Your task to perform on an android device: When is my next appointment? Image 0: 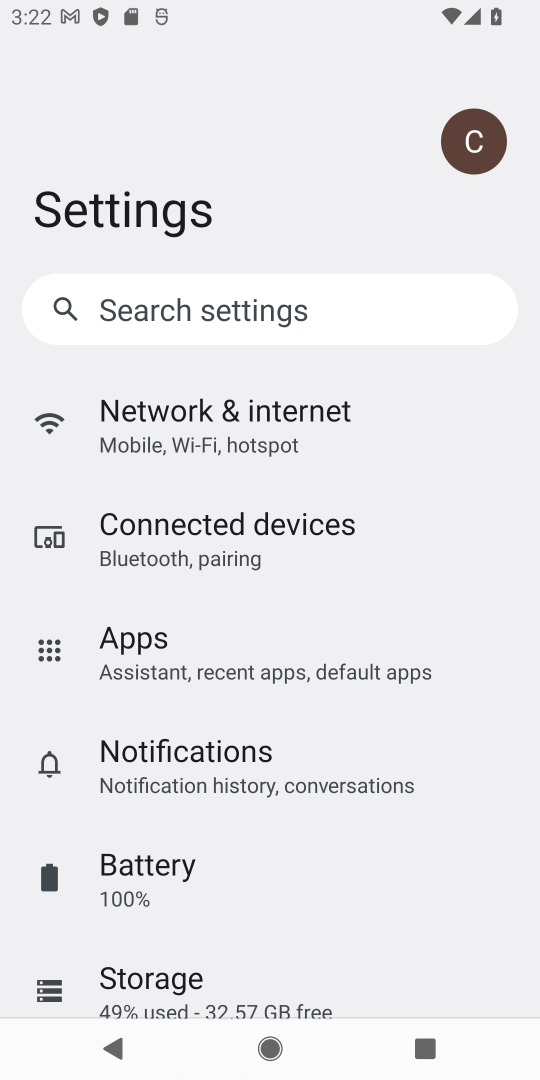
Step 0: press home button
Your task to perform on an android device: When is my next appointment? Image 1: 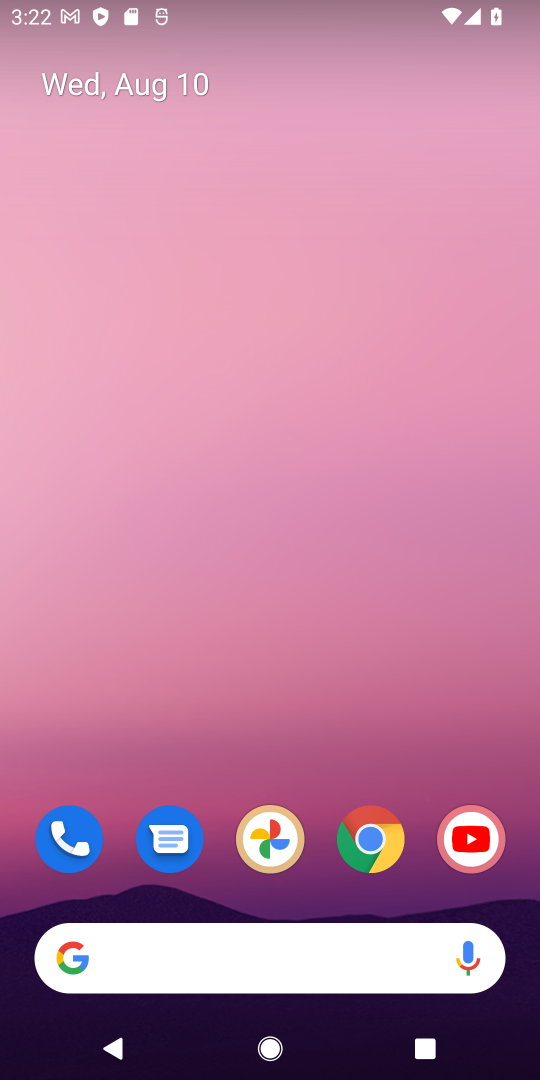
Step 1: drag from (302, 670) to (362, 0)
Your task to perform on an android device: When is my next appointment? Image 2: 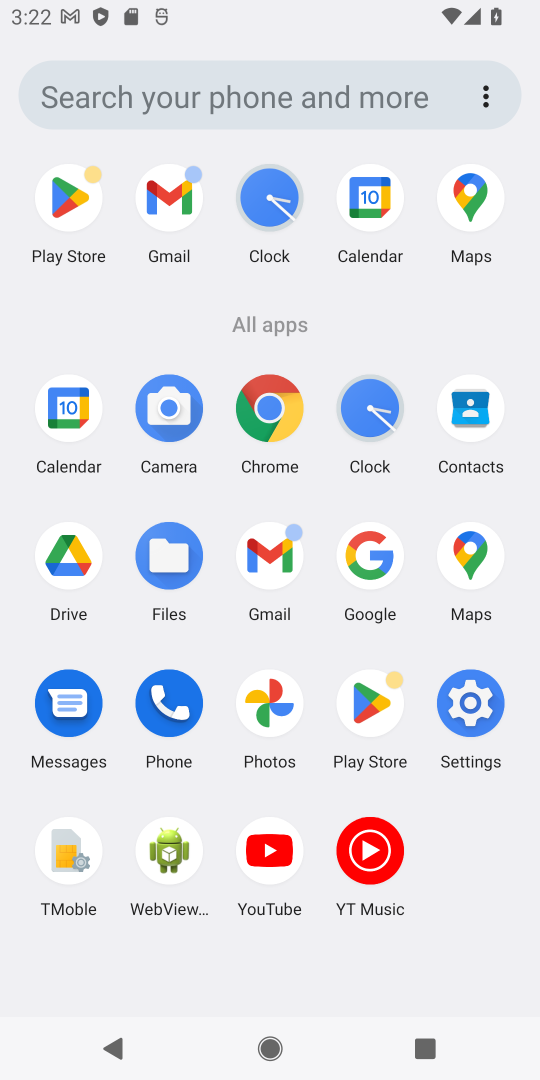
Step 2: click (380, 204)
Your task to perform on an android device: When is my next appointment? Image 3: 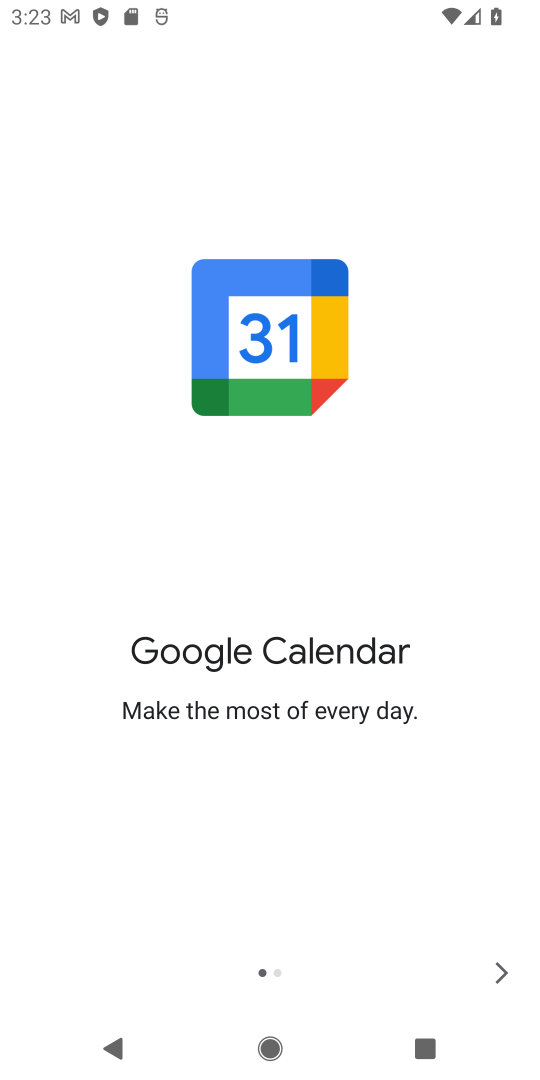
Step 3: click (503, 970)
Your task to perform on an android device: When is my next appointment? Image 4: 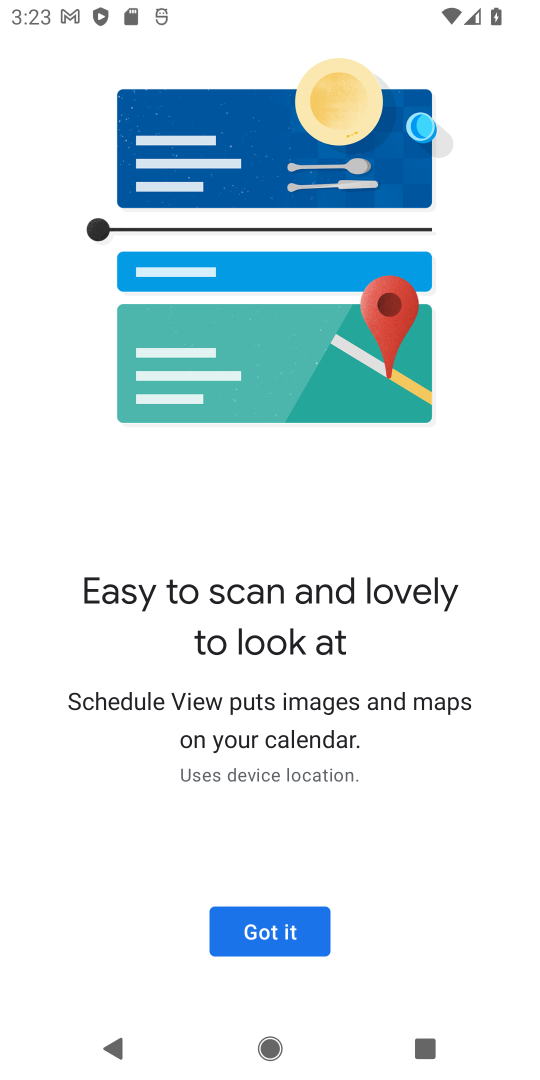
Step 4: click (300, 925)
Your task to perform on an android device: When is my next appointment? Image 5: 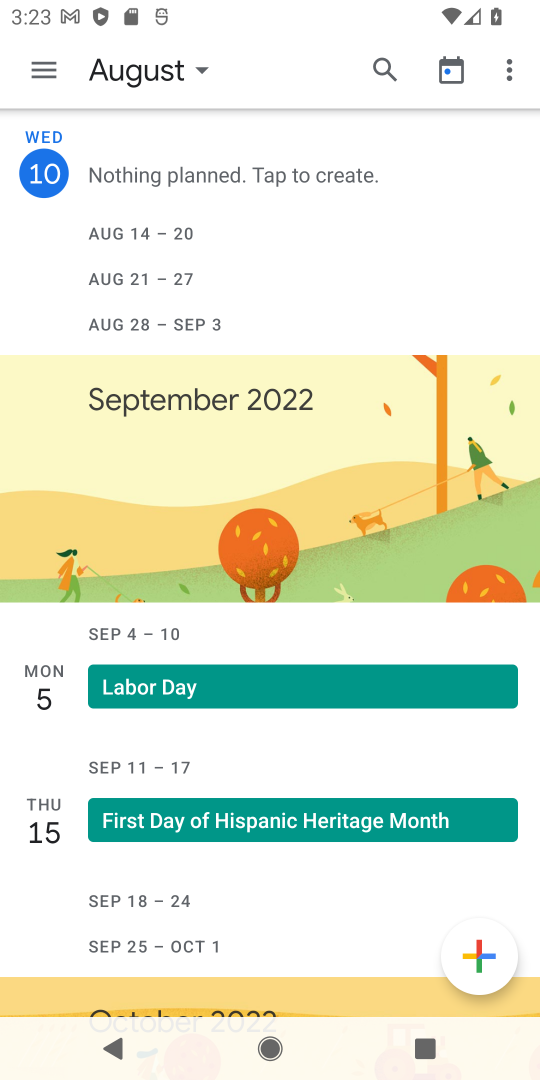
Step 5: task complete